Your task to perform on an android device: Open Youtube and go to "Your channel" Image 0: 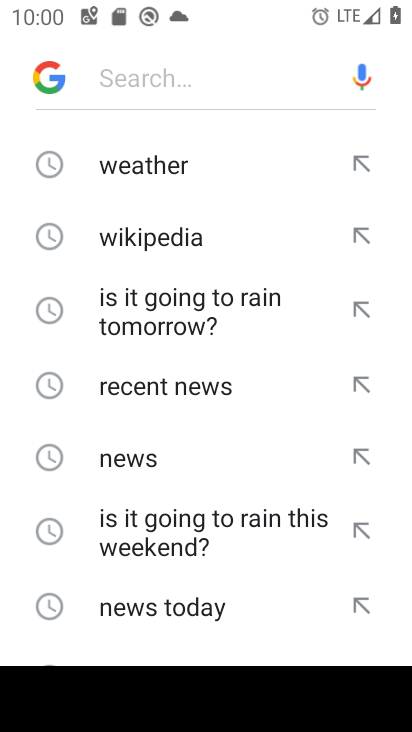
Step 0: press home button
Your task to perform on an android device: Open Youtube and go to "Your channel" Image 1: 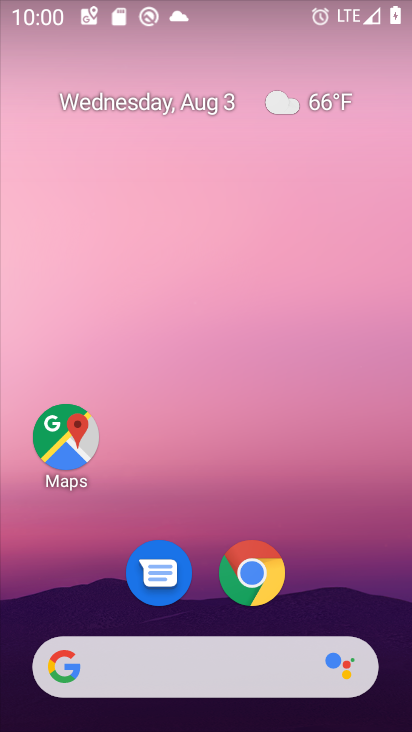
Step 1: drag from (338, 650) to (317, 25)
Your task to perform on an android device: Open Youtube and go to "Your channel" Image 2: 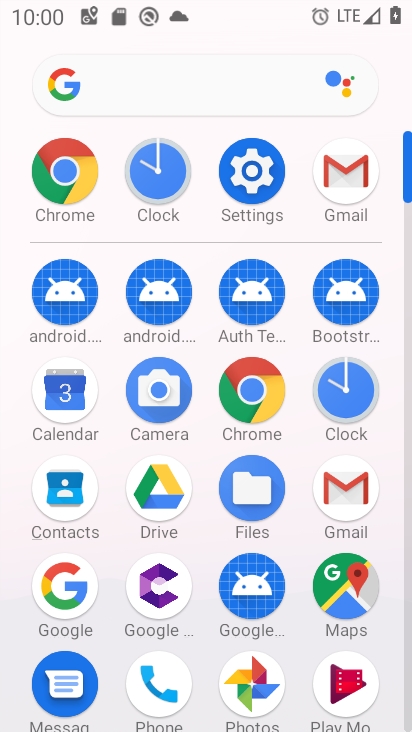
Step 2: drag from (404, 599) to (410, 549)
Your task to perform on an android device: Open Youtube and go to "Your channel" Image 3: 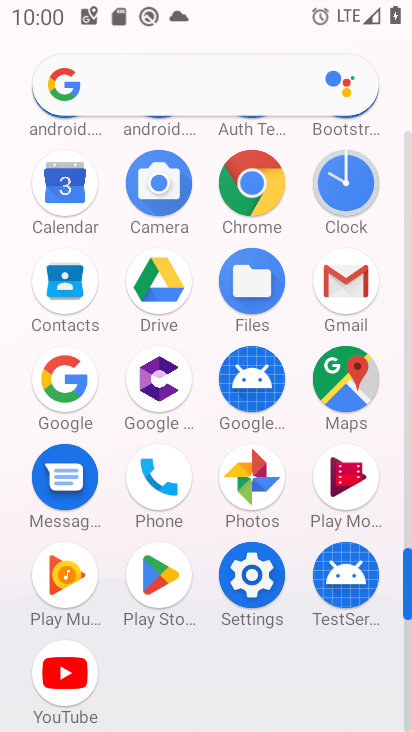
Step 3: click (65, 674)
Your task to perform on an android device: Open Youtube and go to "Your channel" Image 4: 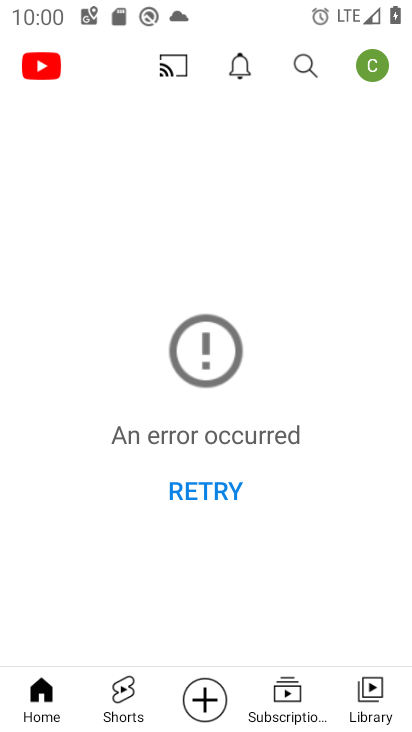
Step 4: click (383, 69)
Your task to perform on an android device: Open Youtube and go to "Your channel" Image 5: 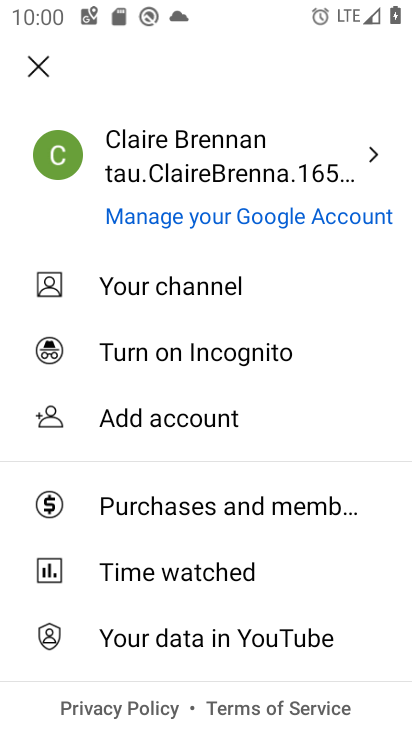
Step 5: click (160, 288)
Your task to perform on an android device: Open Youtube and go to "Your channel" Image 6: 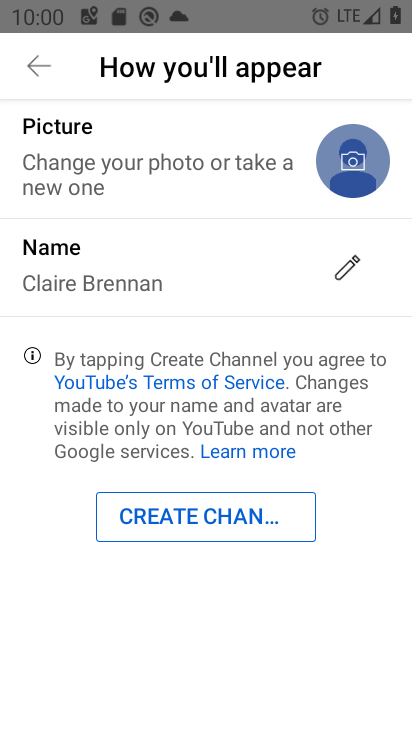
Step 6: task complete